Your task to perform on an android device: install app "Google Drive" Image 0: 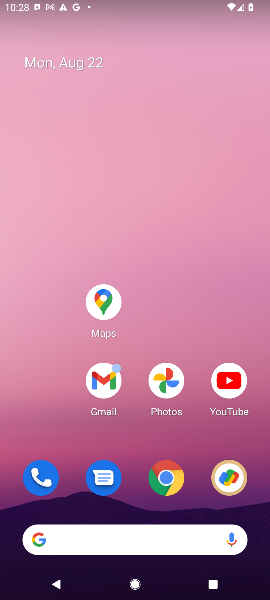
Step 0: drag from (140, 519) to (157, 167)
Your task to perform on an android device: install app "Google Drive" Image 1: 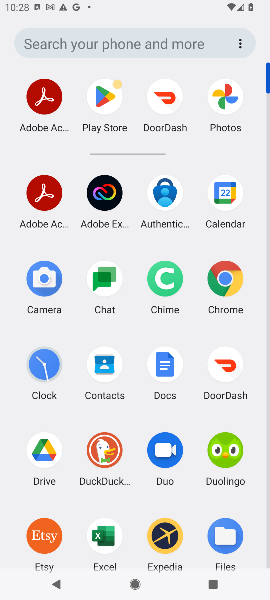
Step 1: click (103, 125)
Your task to perform on an android device: install app "Google Drive" Image 2: 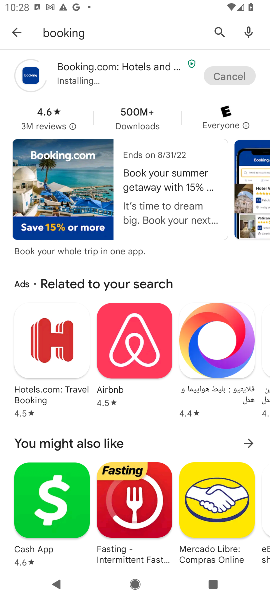
Step 2: click (216, 33)
Your task to perform on an android device: install app "Google Drive" Image 3: 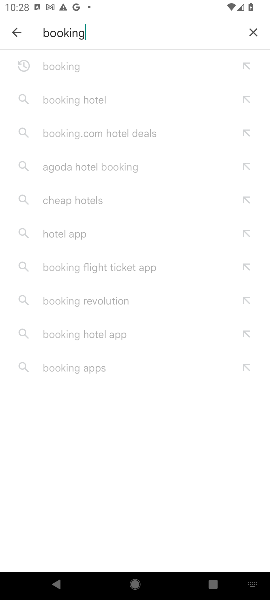
Step 3: click (242, 33)
Your task to perform on an android device: install app "Google Drive" Image 4: 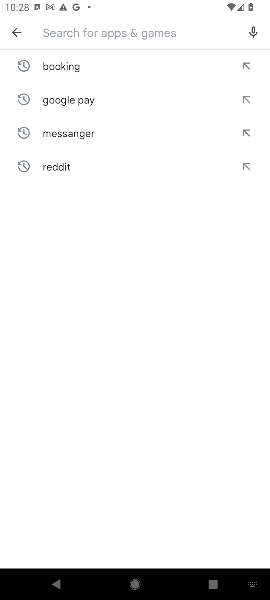
Step 4: type "google drive"
Your task to perform on an android device: install app "Google Drive" Image 5: 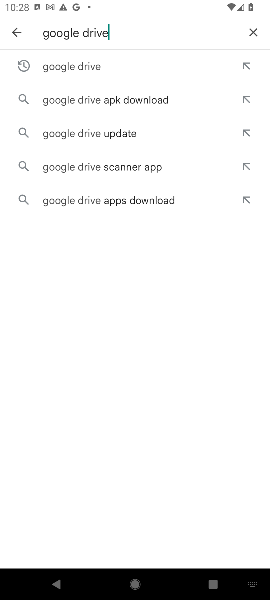
Step 5: click (67, 65)
Your task to perform on an android device: install app "Google Drive" Image 6: 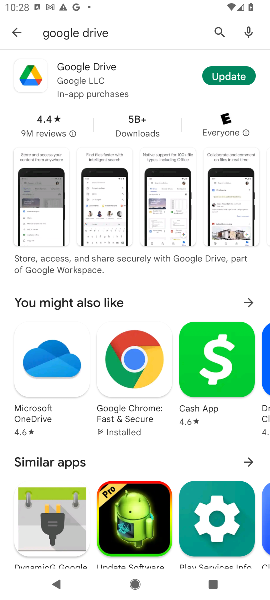
Step 6: click (215, 65)
Your task to perform on an android device: install app "Google Drive" Image 7: 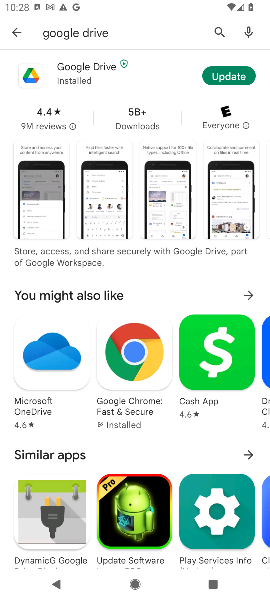
Step 7: task complete